Your task to perform on an android device: Check the weather Image 0: 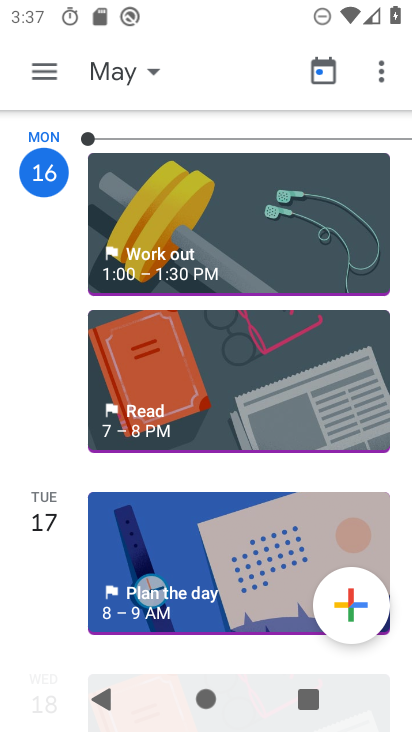
Step 0: drag from (352, 520) to (314, 6)
Your task to perform on an android device: Check the weather Image 1: 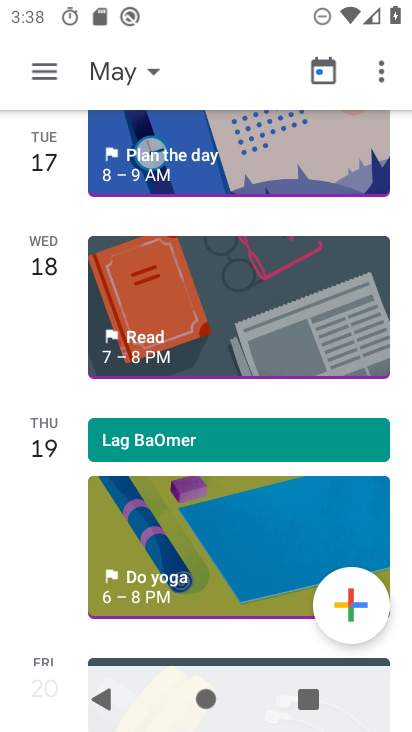
Step 1: press home button
Your task to perform on an android device: Check the weather Image 2: 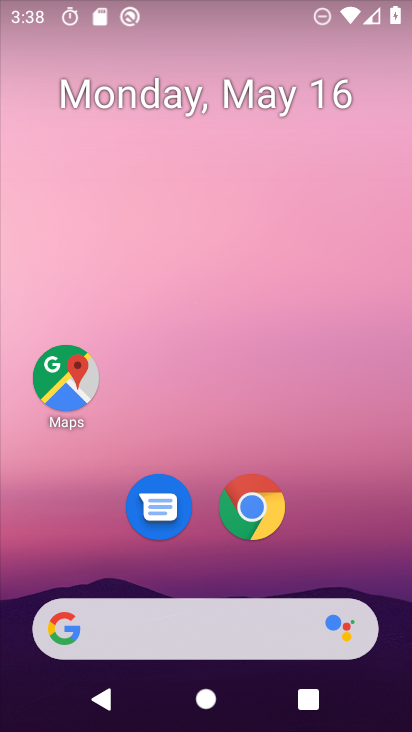
Step 2: click (48, 649)
Your task to perform on an android device: Check the weather Image 3: 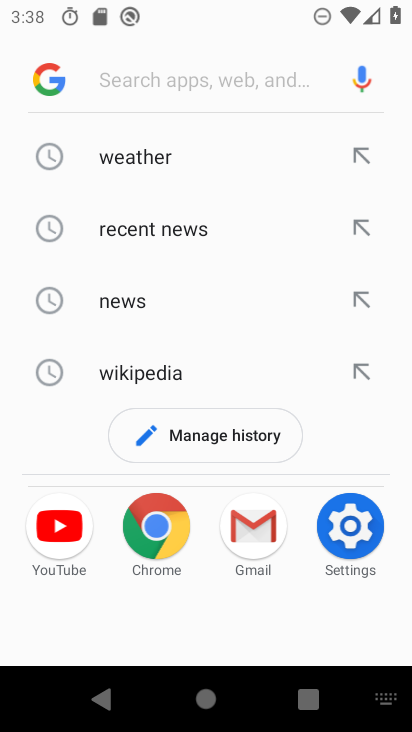
Step 3: click (161, 154)
Your task to perform on an android device: Check the weather Image 4: 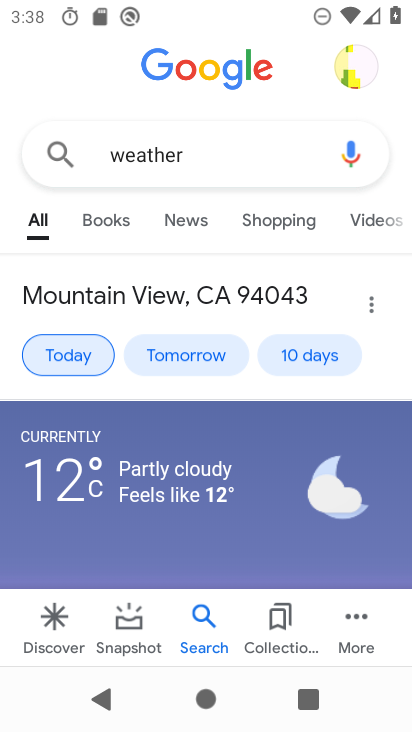
Step 4: task complete